Your task to perform on an android device: Open calendar and show me the third week of next month Image 0: 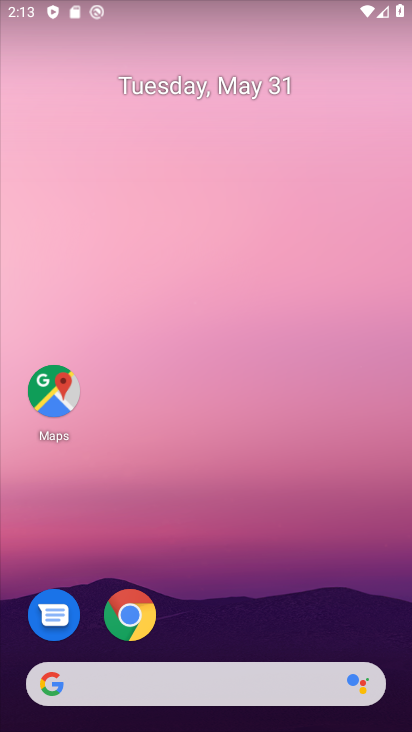
Step 0: drag from (213, 658) to (169, 153)
Your task to perform on an android device: Open calendar and show me the third week of next month Image 1: 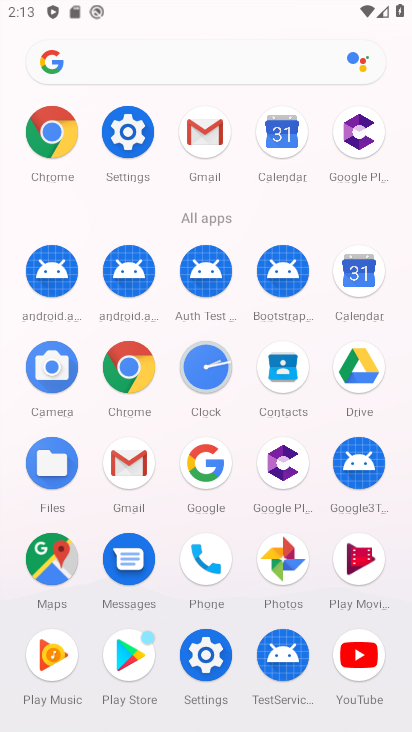
Step 1: click (368, 266)
Your task to perform on an android device: Open calendar and show me the third week of next month Image 2: 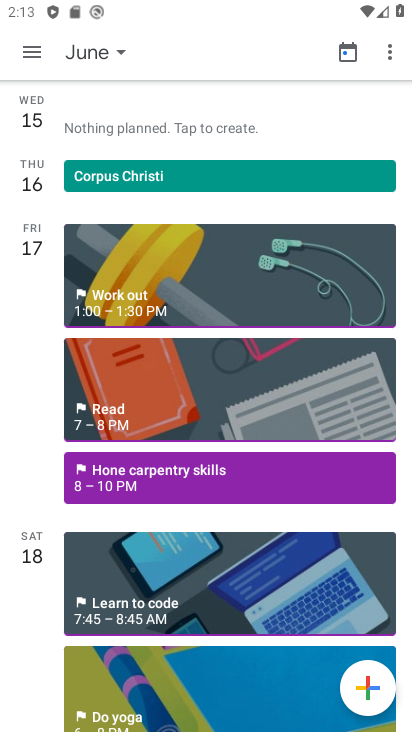
Step 2: click (115, 54)
Your task to perform on an android device: Open calendar and show me the third week of next month Image 3: 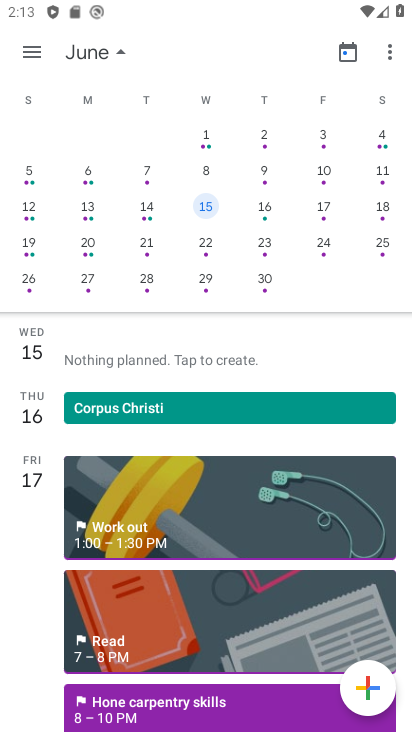
Step 3: click (205, 205)
Your task to perform on an android device: Open calendar and show me the third week of next month Image 4: 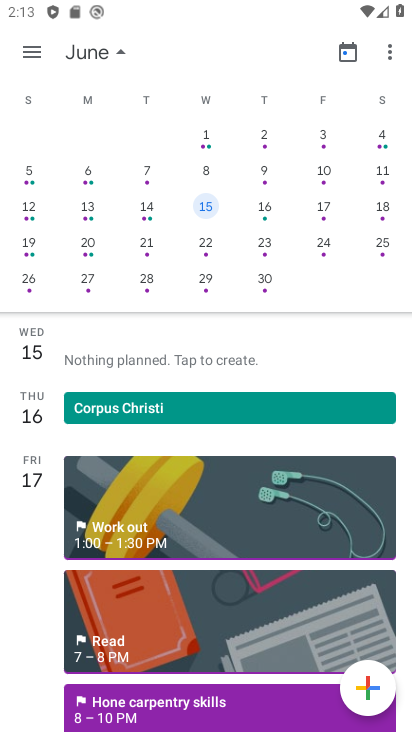
Step 4: click (205, 205)
Your task to perform on an android device: Open calendar and show me the third week of next month Image 5: 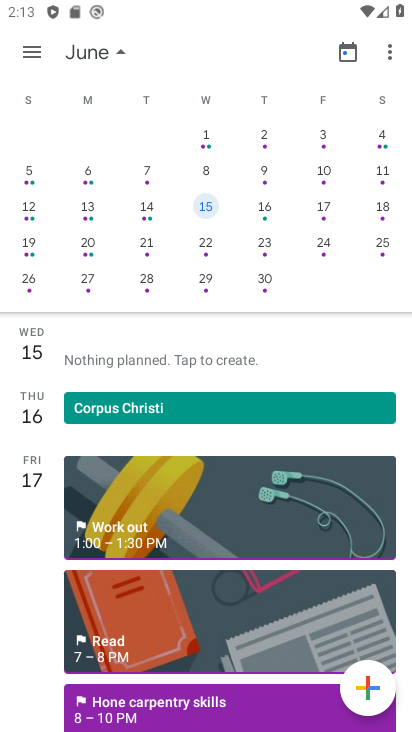
Step 5: click (200, 199)
Your task to perform on an android device: Open calendar and show me the third week of next month Image 6: 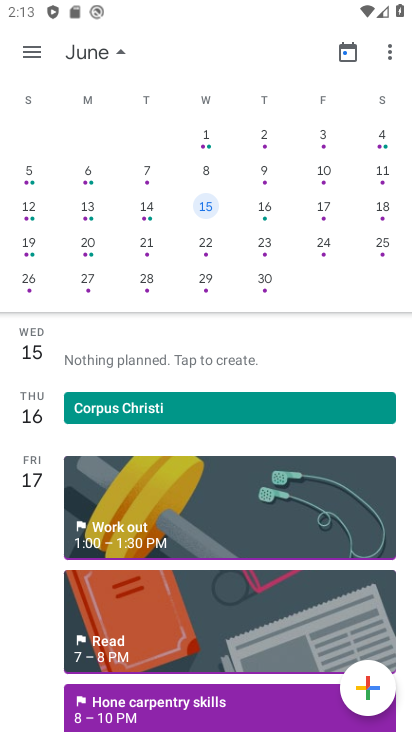
Step 6: task complete